Your task to perform on an android device: Show me popular videos on Youtube Image 0: 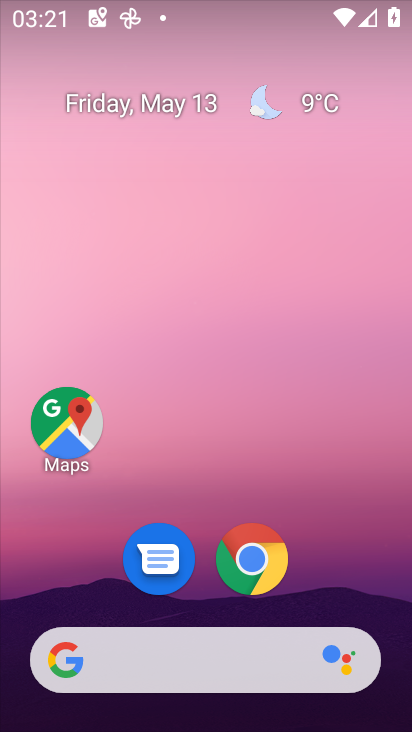
Step 0: drag from (399, 682) to (358, 270)
Your task to perform on an android device: Show me popular videos on Youtube Image 1: 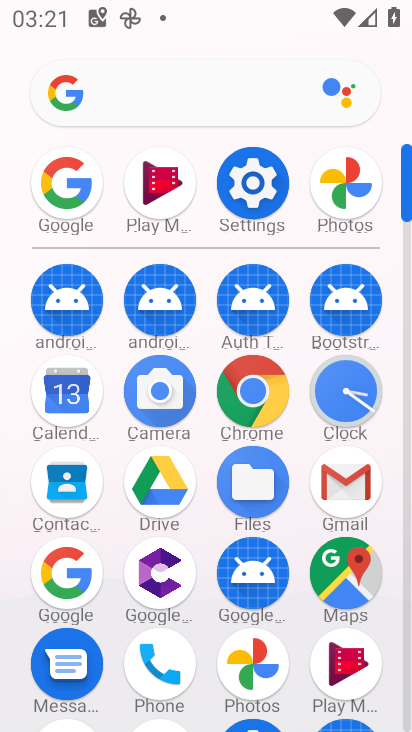
Step 1: drag from (294, 652) to (309, 386)
Your task to perform on an android device: Show me popular videos on Youtube Image 2: 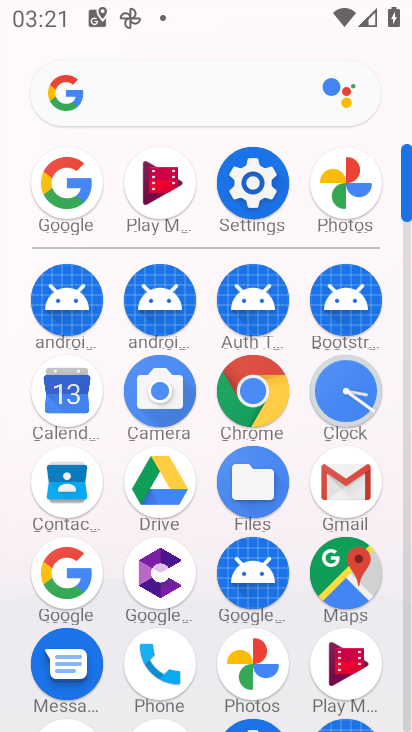
Step 2: click (274, 404)
Your task to perform on an android device: Show me popular videos on Youtube Image 3: 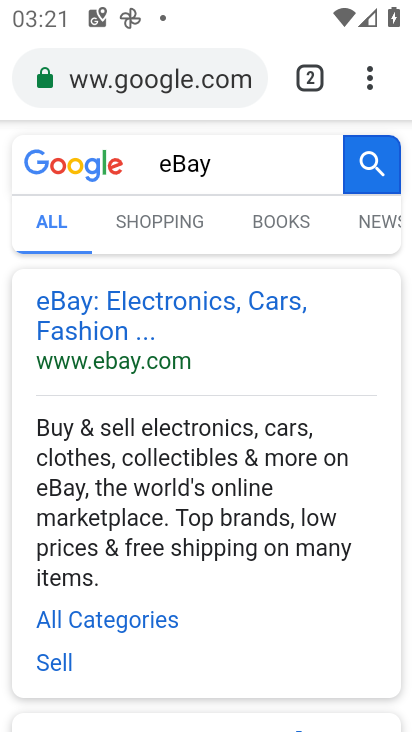
Step 3: press home button
Your task to perform on an android device: Show me popular videos on Youtube Image 4: 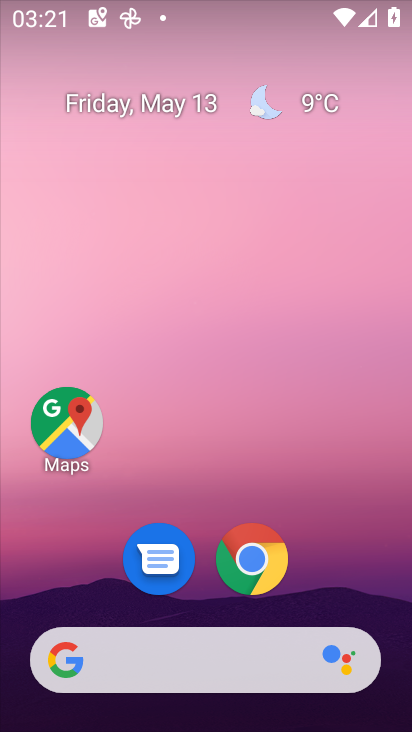
Step 4: drag from (388, 554) to (369, 342)
Your task to perform on an android device: Show me popular videos on Youtube Image 5: 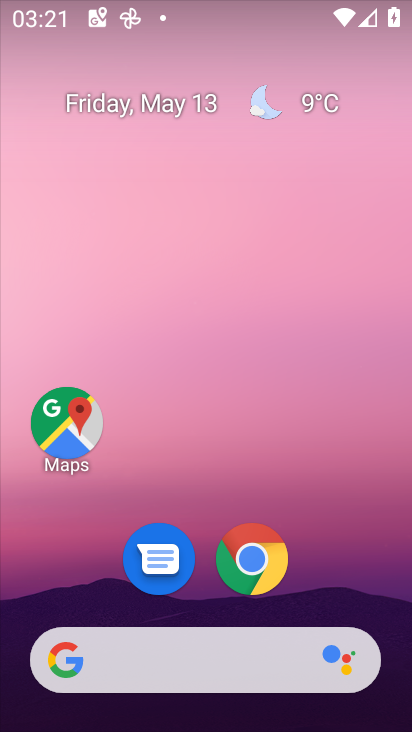
Step 5: drag from (399, 557) to (394, 243)
Your task to perform on an android device: Show me popular videos on Youtube Image 6: 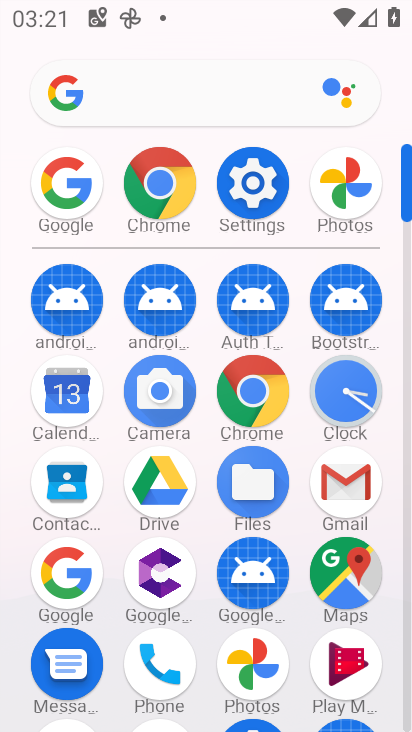
Step 6: drag from (406, 159) to (400, 75)
Your task to perform on an android device: Show me popular videos on Youtube Image 7: 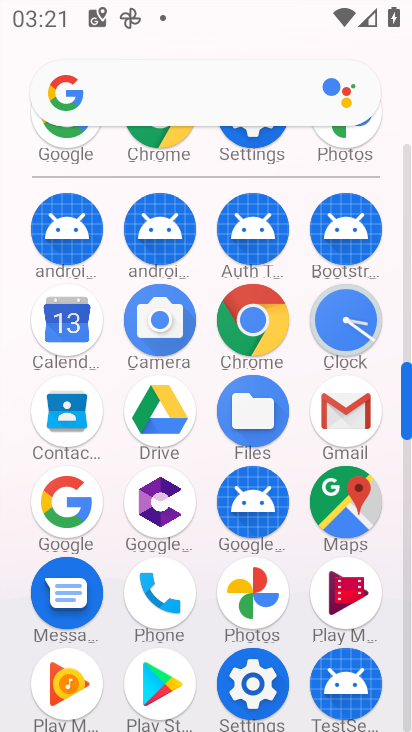
Step 7: drag from (408, 375) to (411, 232)
Your task to perform on an android device: Show me popular videos on Youtube Image 8: 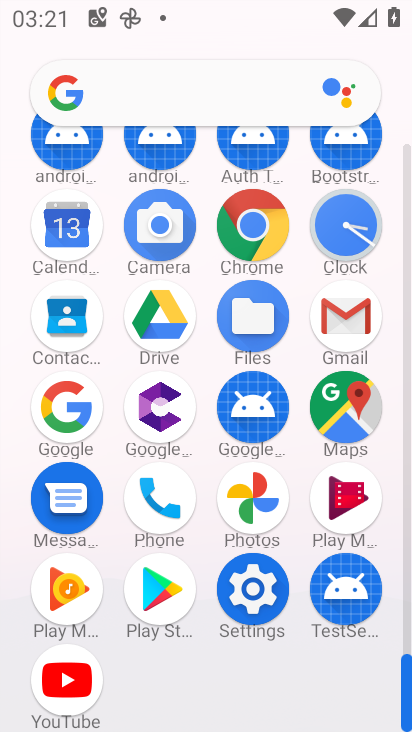
Step 8: click (83, 721)
Your task to perform on an android device: Show me popular videos on Youtube Image 9: 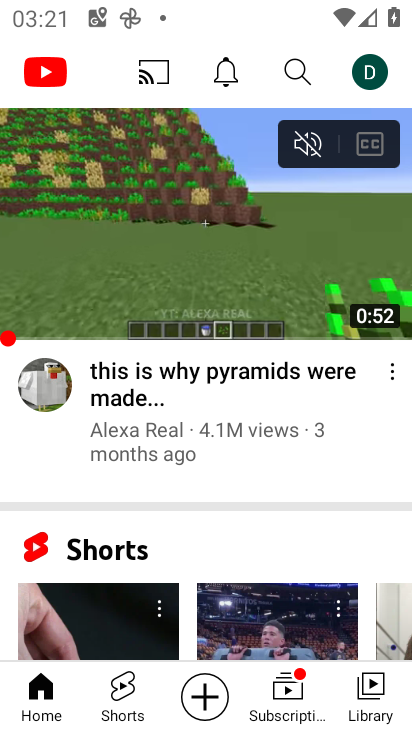
Step 9: click (364, 697)
Your task to perform on an android device: Show me popular videos on Youtube Image 10: 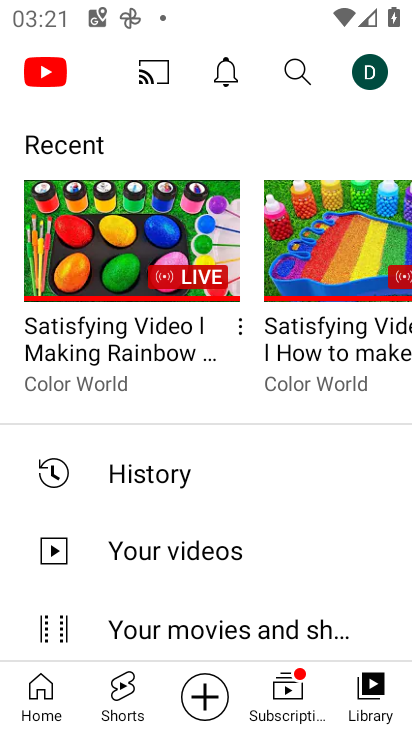
Step 10: click (102, 270)
Your task to perform on an android device: Show me popular videos on Youtube Image 11: 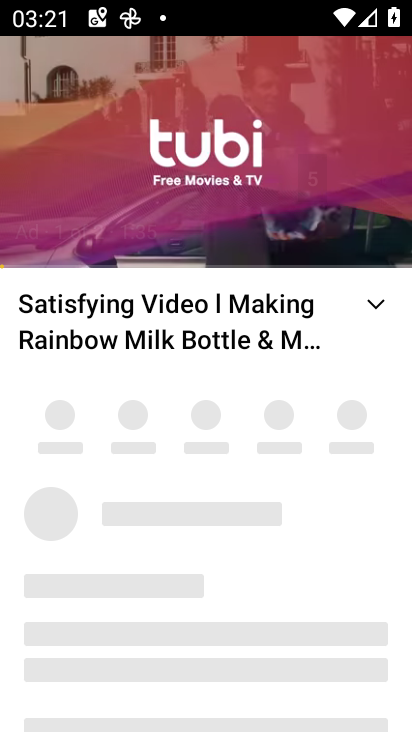
Step 11: task complete